Your task to perform on an android device: Do I have any events today? Image 0: 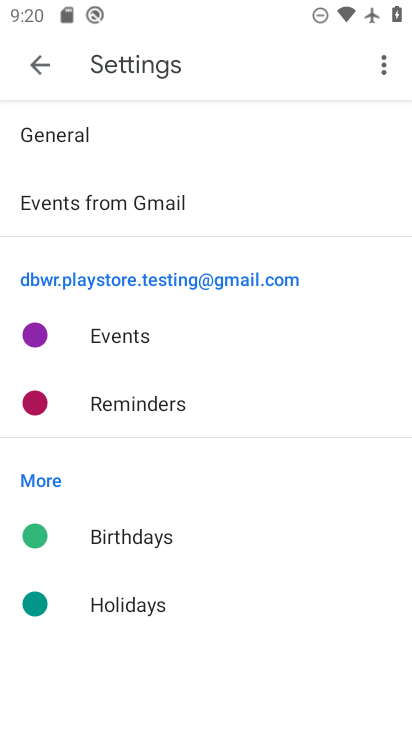
Step 0: press home button
Your task to perform on an android device: Do I have any events today? Image 1: 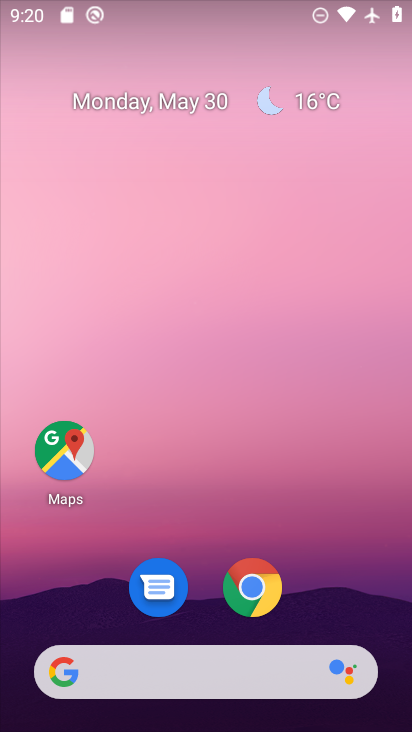
Step 1: drag from (142, 685) to (279, 189)
Your task to perform on an android device: Do I have any events today? Image 2: 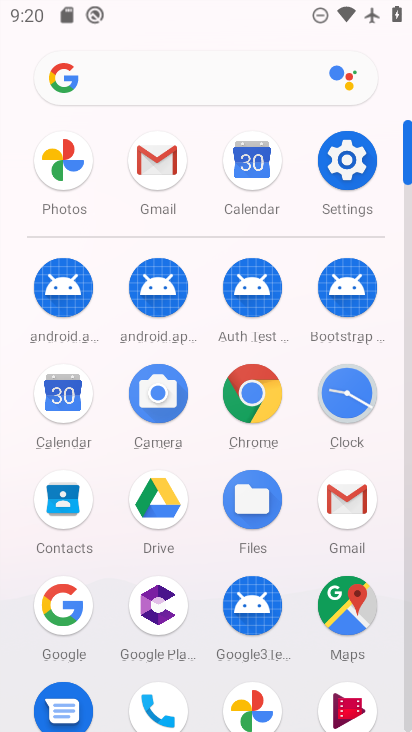
Step 2: click (260, 168)
Your task to perform on an android device: Do I have any events today? Image 3: 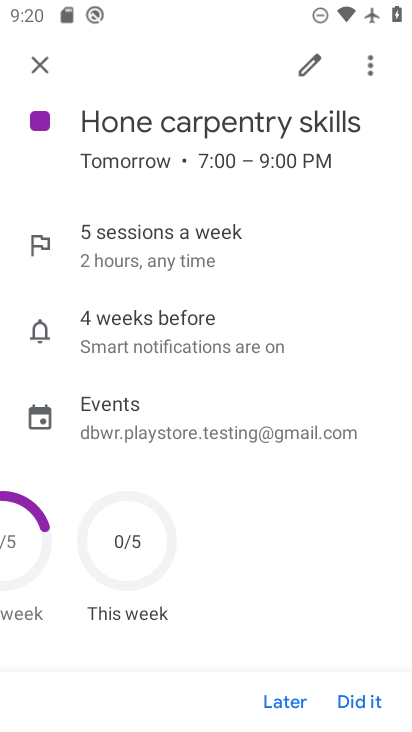
Step 3: click (37, 63)
Your task to perform on an android device: Do I have any events today? Image 4: 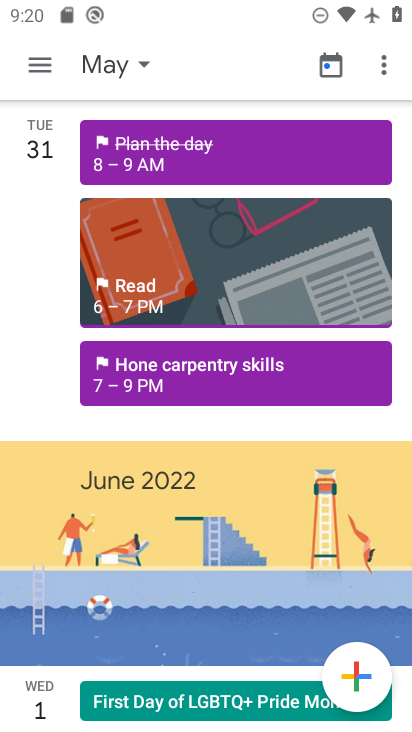
Step 4: click (108, 69)
Your task to perform on an android device: Do I have any events today? Image 5: 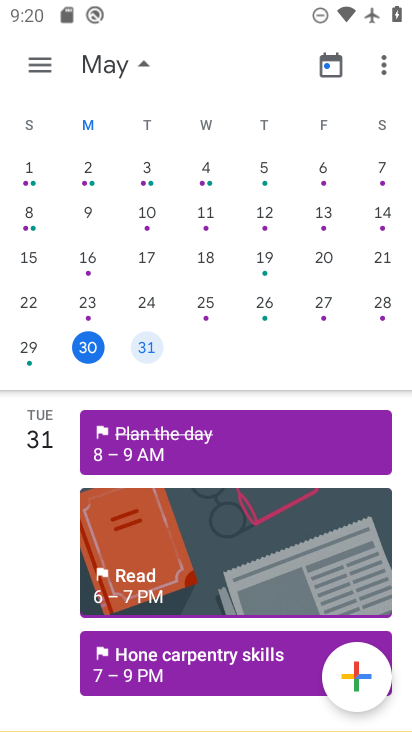
Step 5: click (94, 354)
Your task to perform on an android device: Do I have any events today? Image 6: 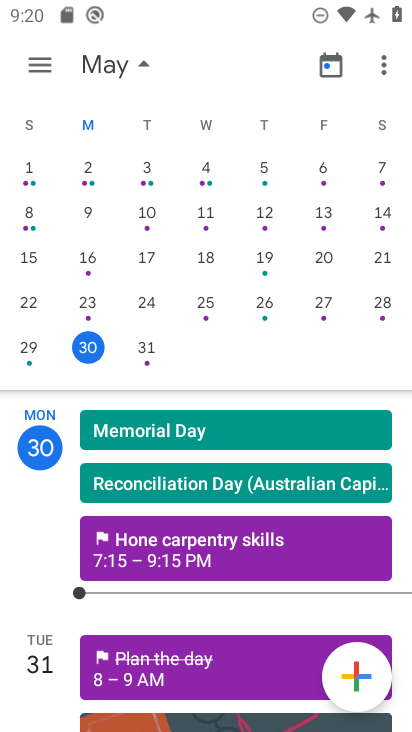
Step 6: click (36, 63)
Your task to perform on an android device: Do I have any events today? Image 7: 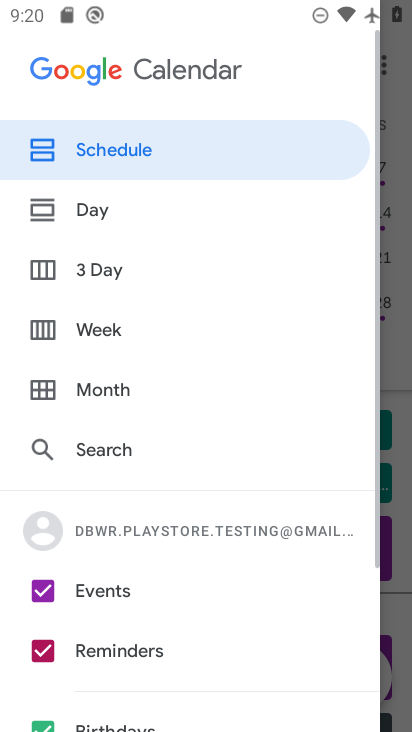
Step 7: click (98, 156)
Your task to perform on an android device: Do I have any events today? Image 8: 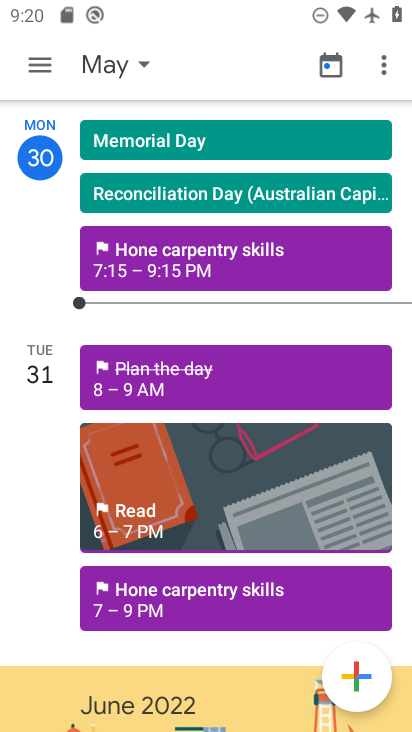
Step 8: click (238, 259)
Your task to perform on an android device: Do I have any events today? Image 9: 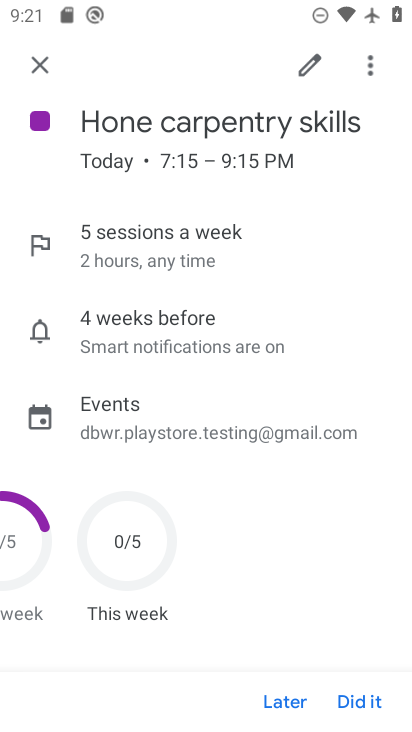
Step 9: task complete